Your task to perform on an android device: Open Google Image 0: 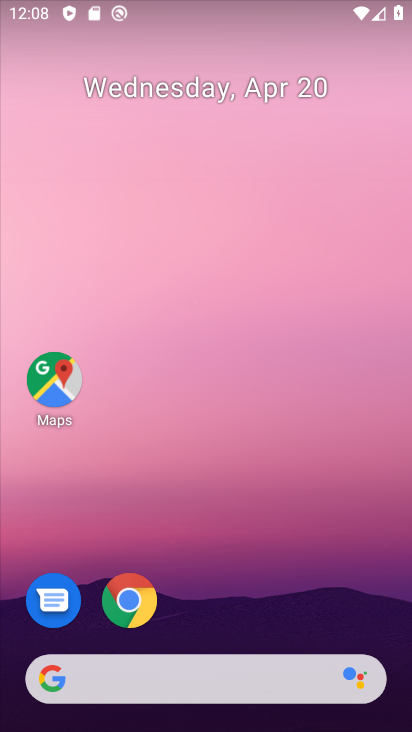
Step 0: drag from (213, 560) to (293, 27)
Your task to perform on an android device: Open Google Image 1: 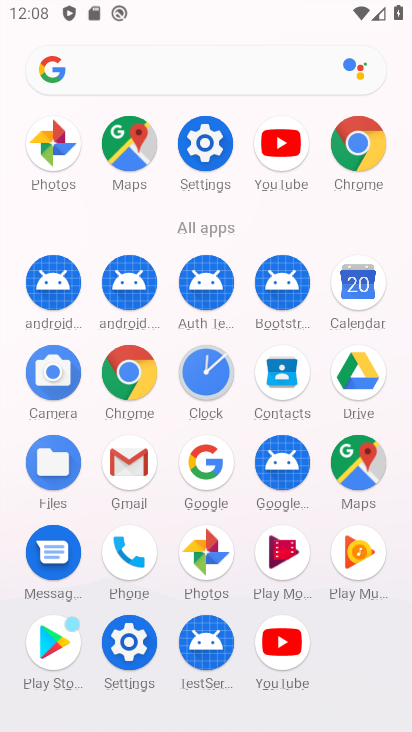
Step 1: click (201, 456)
Your task to perform on an android device: Open Google Image 2: 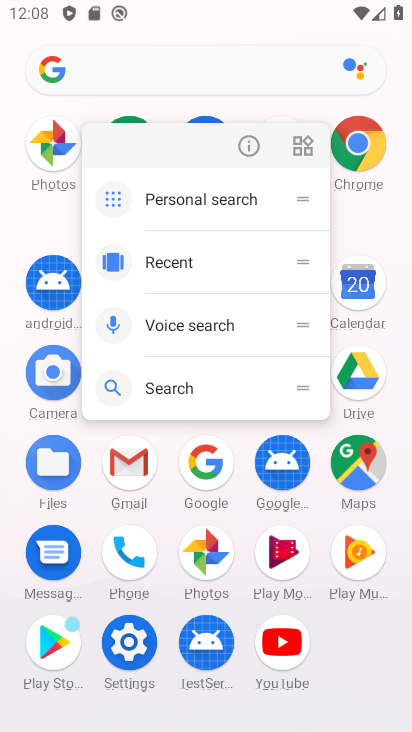
Step 2: click (221, 457)
Your task to perform on an android device: Open Google Image 3: 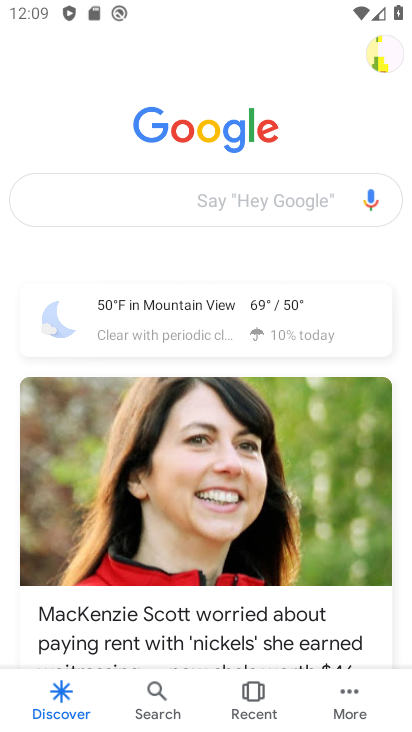
Step 3: task complete